Your task to perform on an android device: What's the weather today? Image 0: 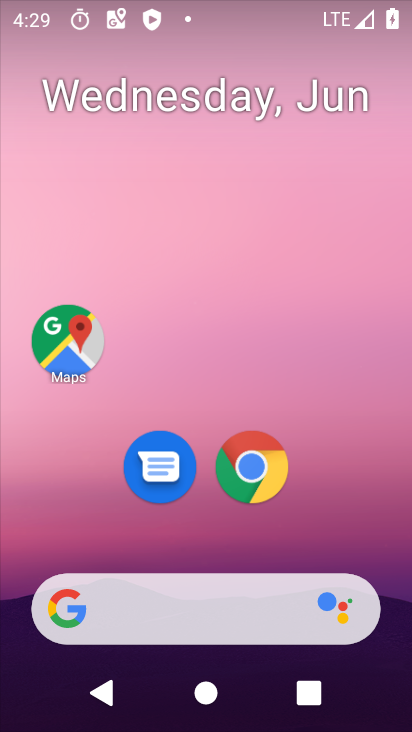
Step 0: drag from (308, 530) to (189, 23)
Your task to perform on an android device: What's the weather today? Image 1: 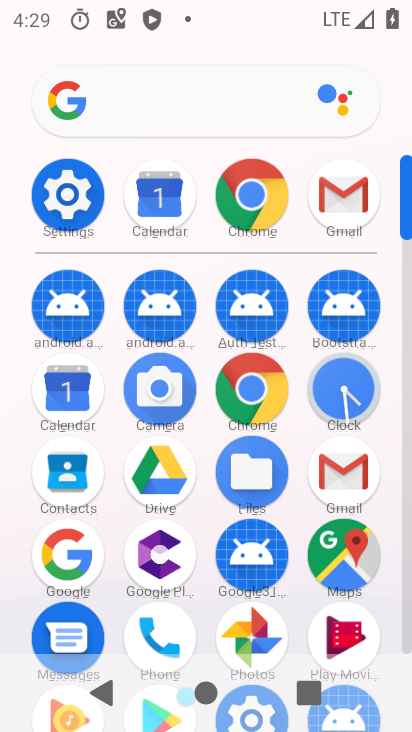
Step 1: click (56, 554)
Your task to perform on an android device: What's the weather today? Image 2: 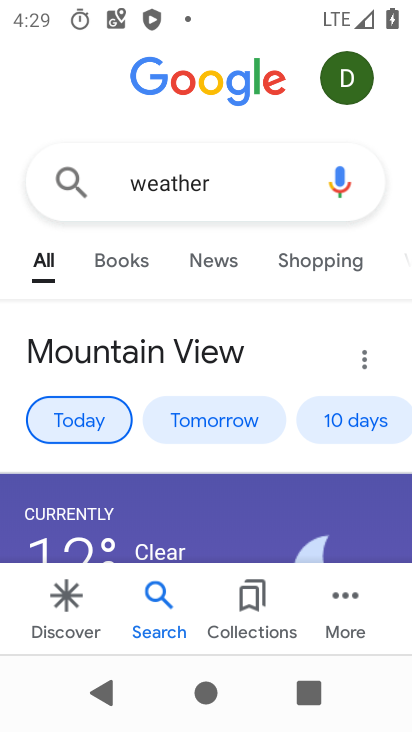
Step 2: task complete